Your task to perform on an android device: change alarm snooze length Image 0: 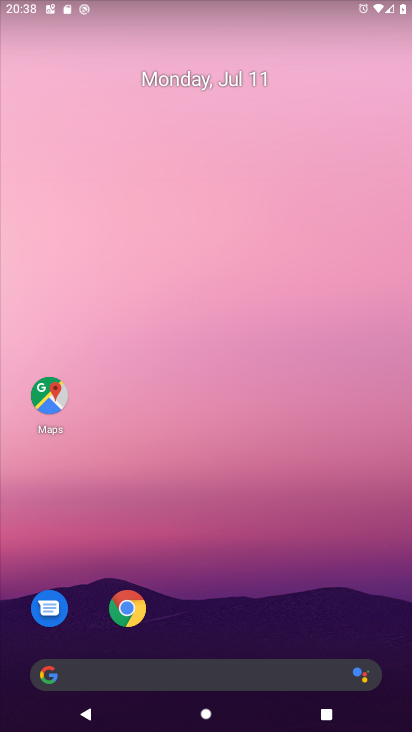
Step 0: drag from (279, 606) to (316, 242)
Your task to perform on an android device: change alarm snooze length Image 1: 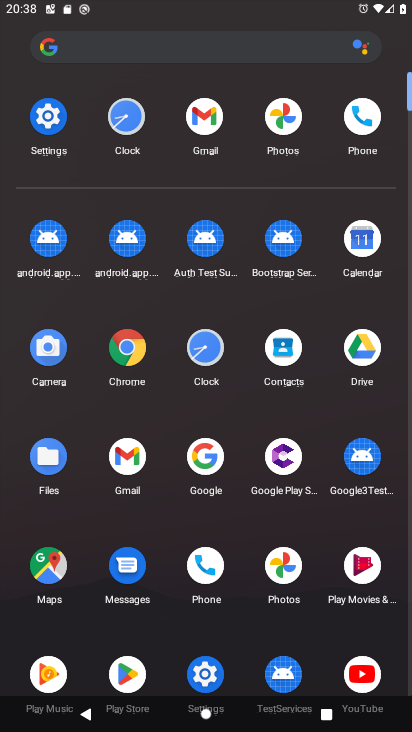
Step 1: click (134, 134)
Your task to perform on an android device: change alarm snooze length Image 2: 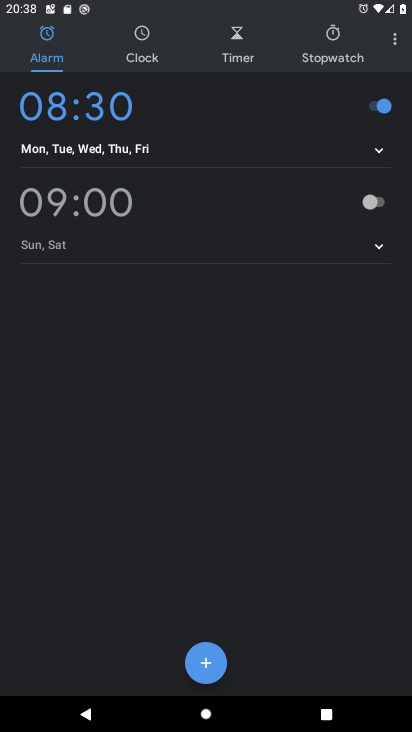
Step 2: click (401, 31)
Your task to perform on an android device: change alarm snooze length Image 3: 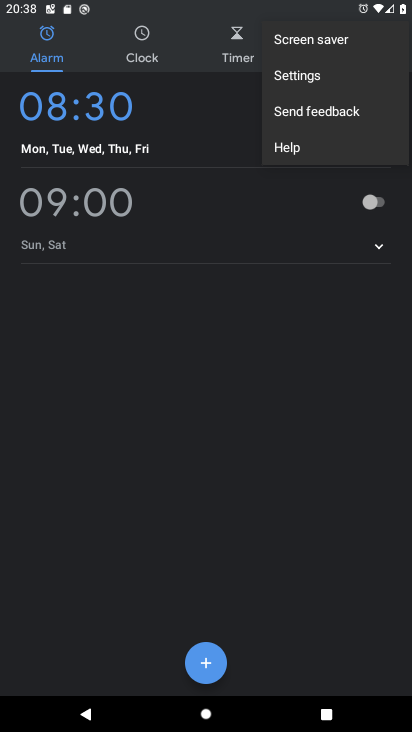
Step 3: click (295, 72)
Your task to perform on an android device: change alarm snooze length Image 4: 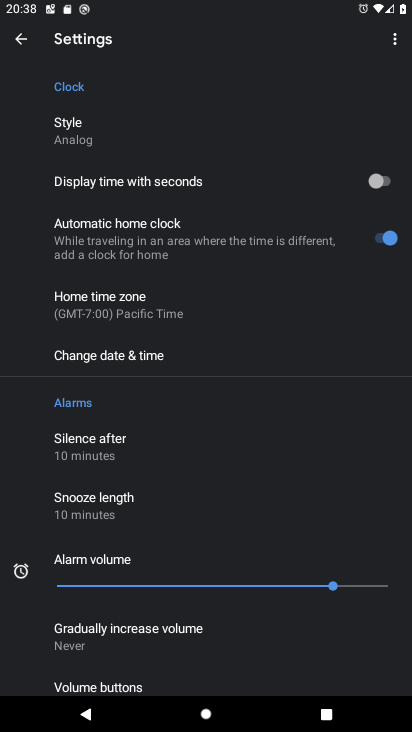
Step 4: click (206, 507)
Your task to perform on an android device: change alarm snooze length Image 5: 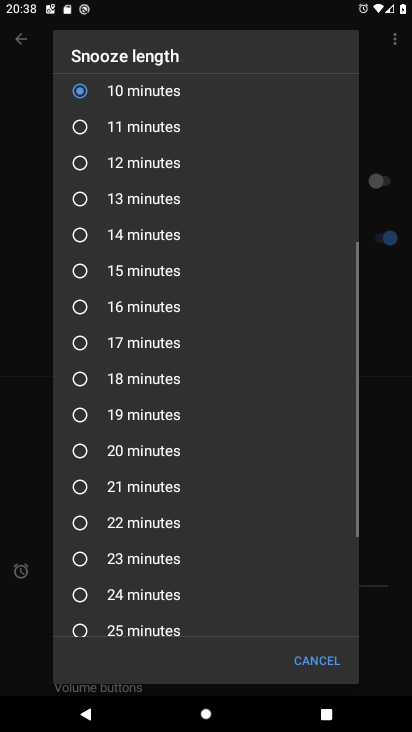
Step 5: click (148, 349)
Your task to perform on an android device: change alarm snooze length Image 6: 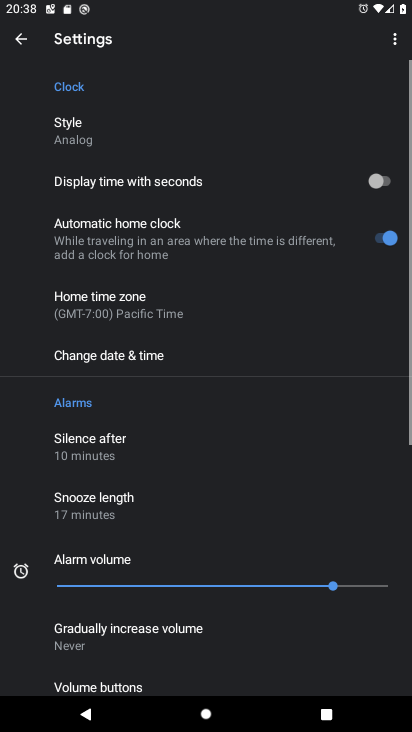
Step 6: task complete